Your task to perform on an android device: turn off notifications settings in the gmail app Image 0: 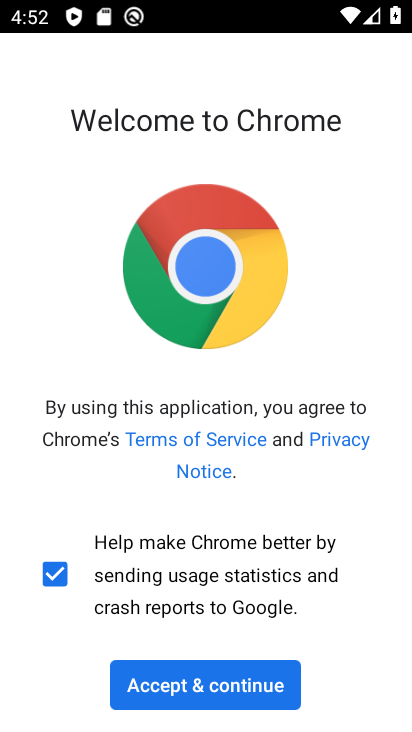
Step 0: press home button
Your task to perform on an android device: turn off notifications settings in the gmail app Image 1: 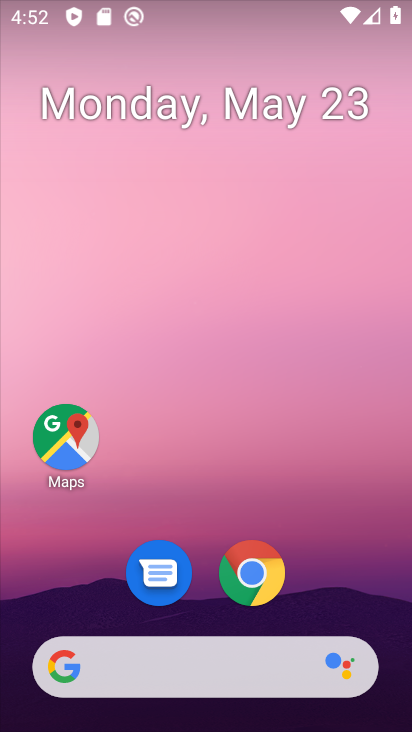
Step 1: drag from (354, 564) to (267, 96)
Your task to perform on an android device: turn off notifications settings in the gmail app Image 2: 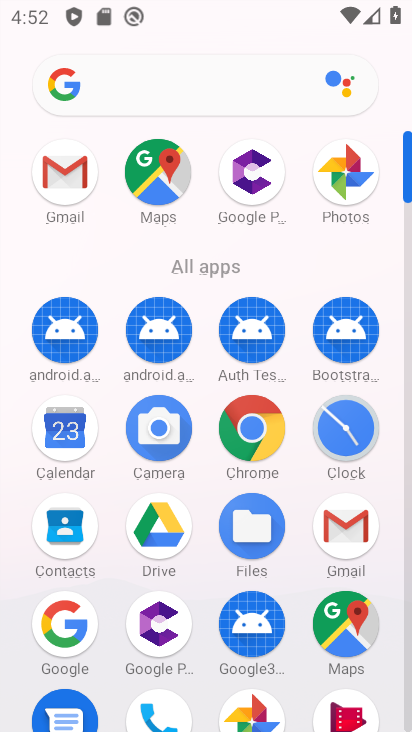
Step 2: click (66, 171)
Your task to perform on an android device: turn off notifications settings in the gmail app Image 3: 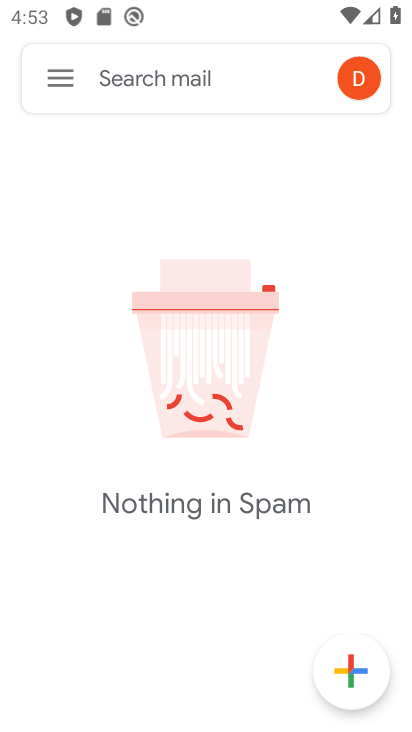
Step 3: click (53, 82)
Your task to perform on an android device: turn off notifications settings in the gmail app Image 4: 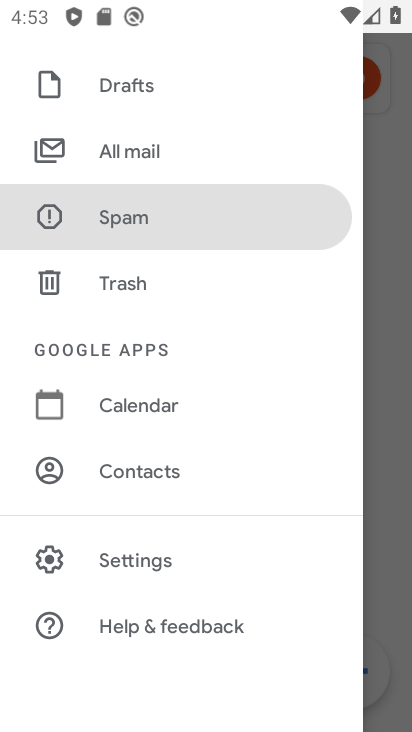
Step 4: click (142, 561)
Your task to perform on an android device: turn off notifications settings in the gmail app Image 5: 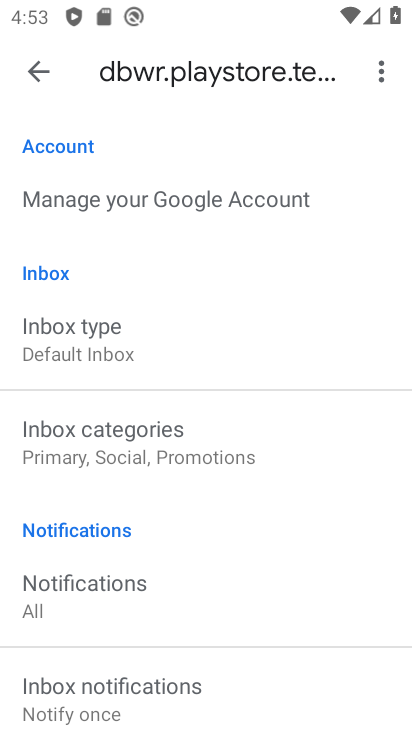
Step 5: drag from (83, 471) to (145, 371)
Your task to perform on an android device: turn off notifications settings in the gmail app Image 6: 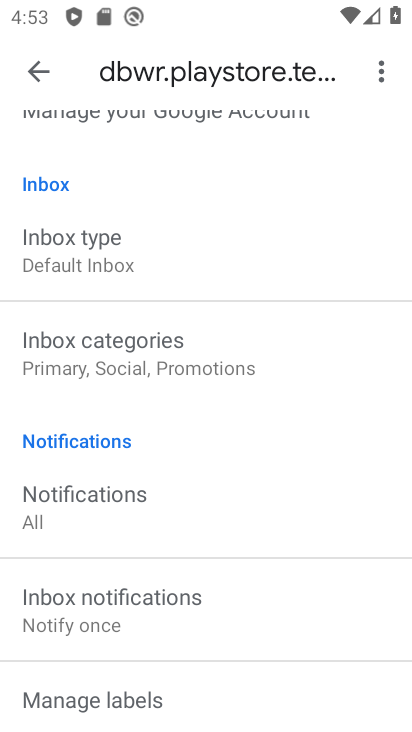
Step 6: drag from (113, 527) to (130, 451)
Your task to perform on an android device: turn off notifications settings in the gmail app Image 7: 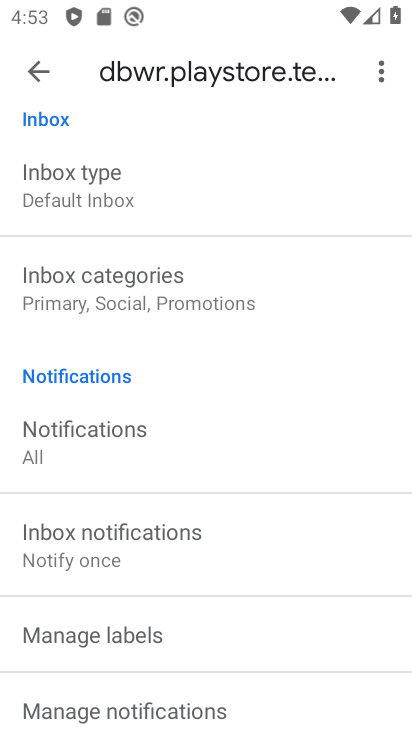
Step 7: drag from (103, 574) to (144, 502)
Your task to perform on an android device: turn off notifications settings in the gmail app Image 8: 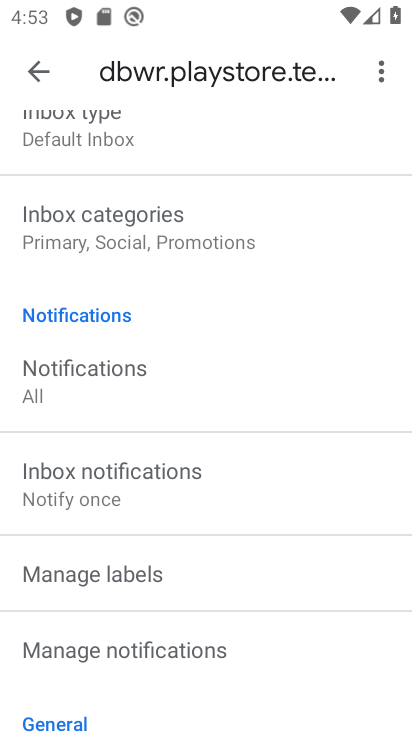
Step 8: drag from (84, 595) to (143, 493)
Your task to perform on an android device: turn off notifications settings in the gmail app Image 9: 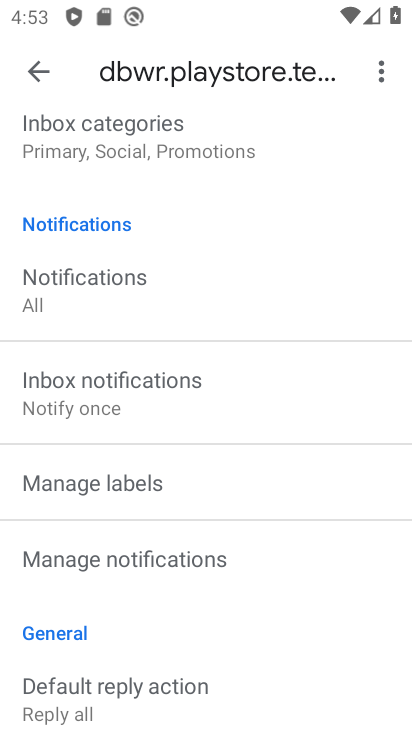
Step 9: click (164, 565)
Your task to perform on an android device: turn off notifications settings in the gmail app Image 10: 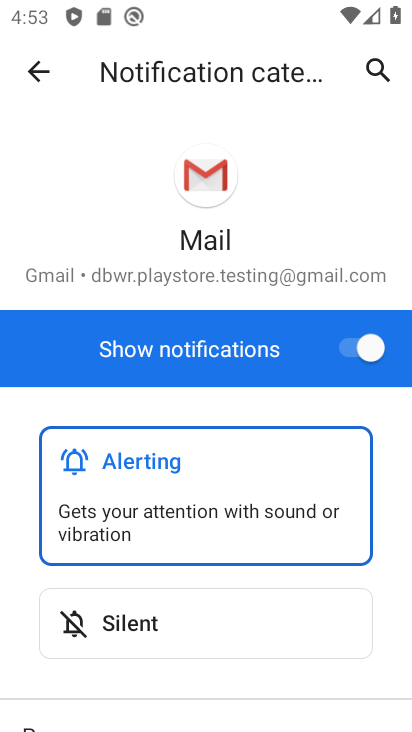
Step 10: click (355, 348)
Your task to perform on an android device: turn off notifications settings in the gmail app Image 11: 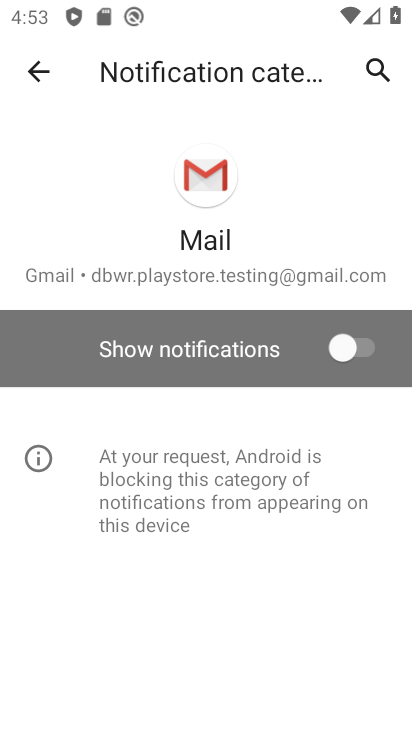
Step 11: task complete